Your task to perform on an android device: Turn off the flashlight Image 0: 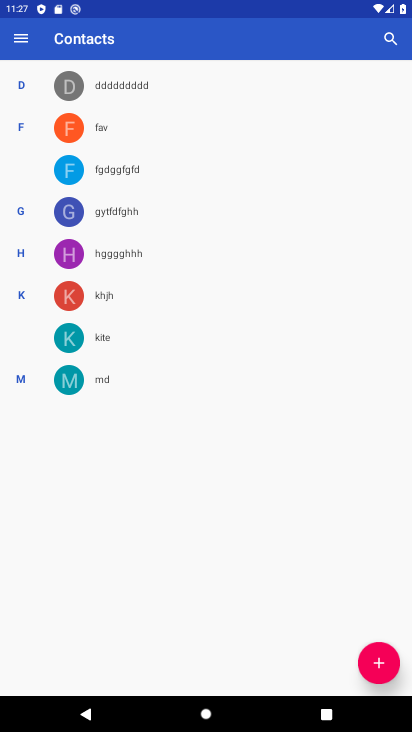
Step 0: press home button
Your task to perform on an android device: Turn off the flashlight Image 1: 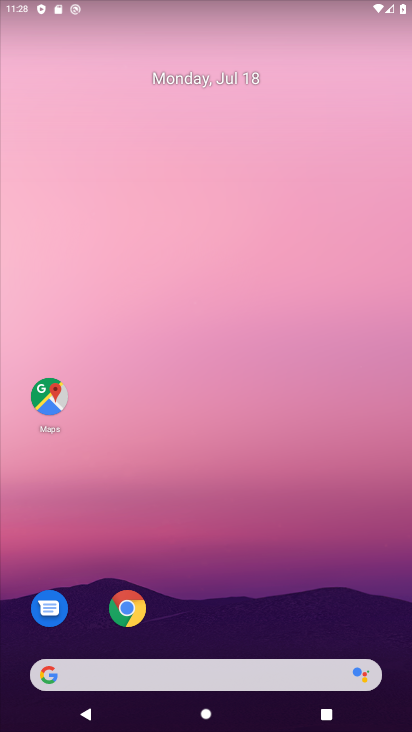
Step 1: drag from (158, 667) to (239, 170)
Your task to perform on an android device: Turn off the flashlight Image 2: 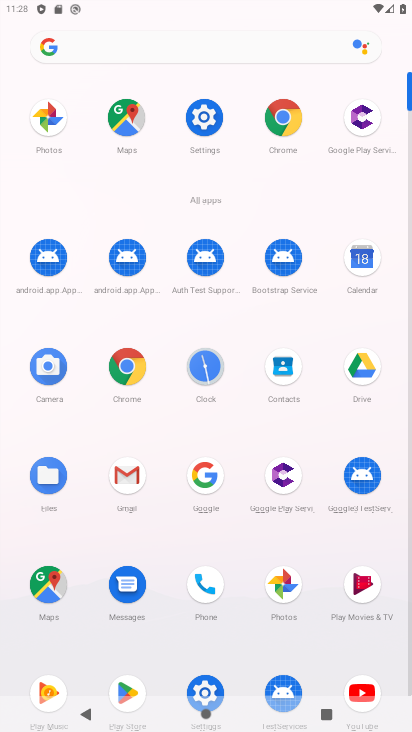
Step 2: click (204, 118)
Your task to perform on an android device: Turn off the flashlight Image 3: 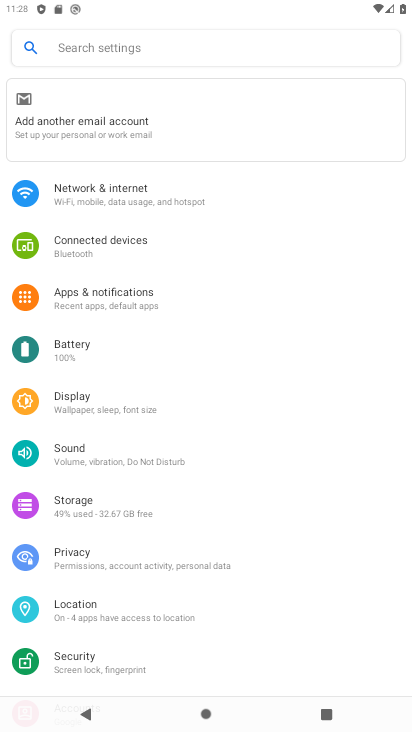
Step 3: click (96, 408)
Your task to perform on an android device: Turn off the flashlight Image 4: 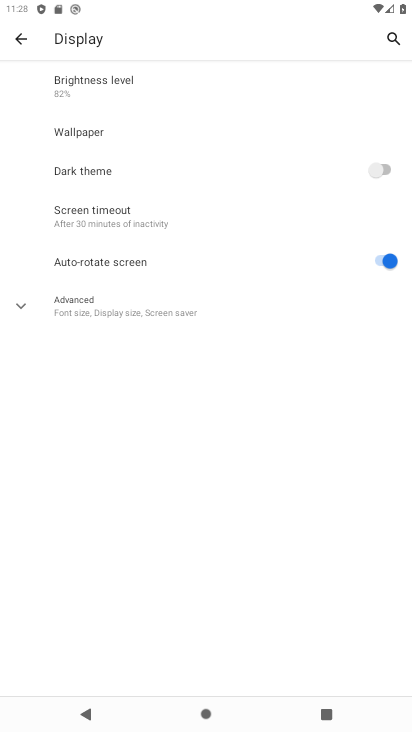
Step 4: click (124, 309)
Your task to perform on an android device: Turn off the flashlight Image 5: 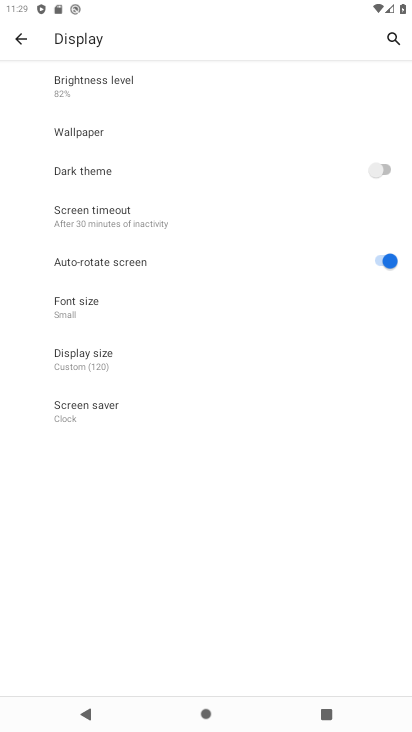
Step 5: task complete